Your task to perform on an android device: Go to wifi settings Image 0: 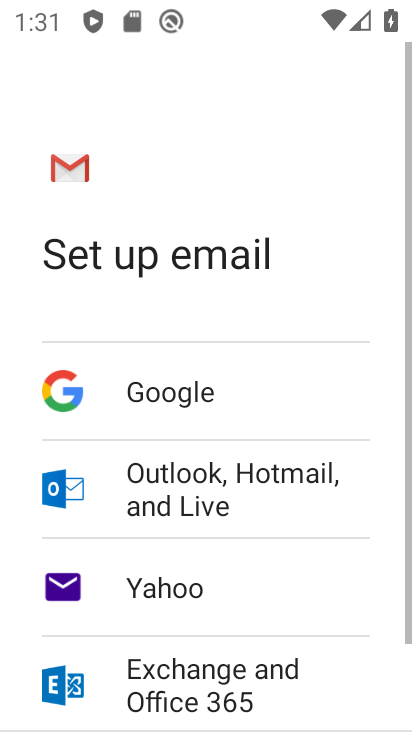
Step 0: press home button
Your task to perform on an android device: Go to wifi settings Image 1: 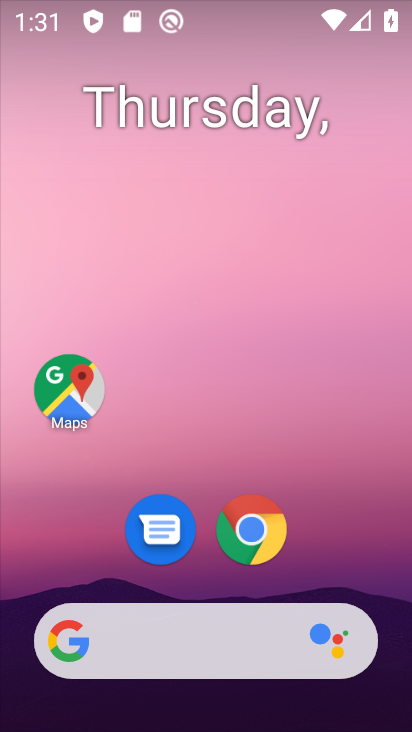
Step 1: drag from (217, 721) to (218, 157)
Your task to perform on an android device: Go to wifi settings Image 2: 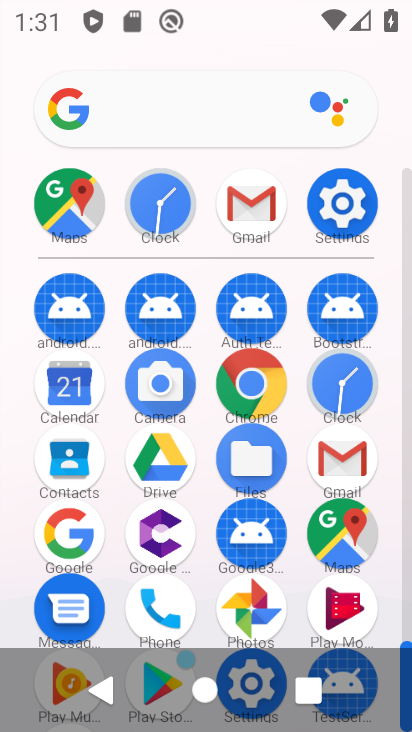
Step 2: click (339, 195)
Your task to perform on an android device: Go to wifi settings Image 3: 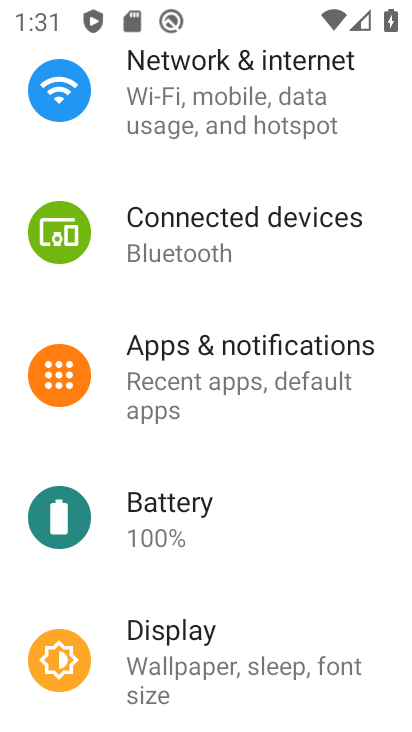
Step 3: drag from (214, 176) to (243, 527)
Your task to perform on an android device: Go to wifi settings Image 4: 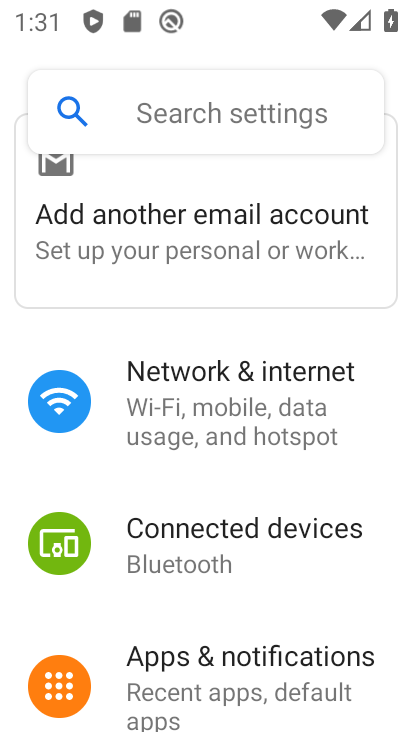
Step 4: click (195, 402)
Your task to perform on an android device: Go to wifi settings Image 5: 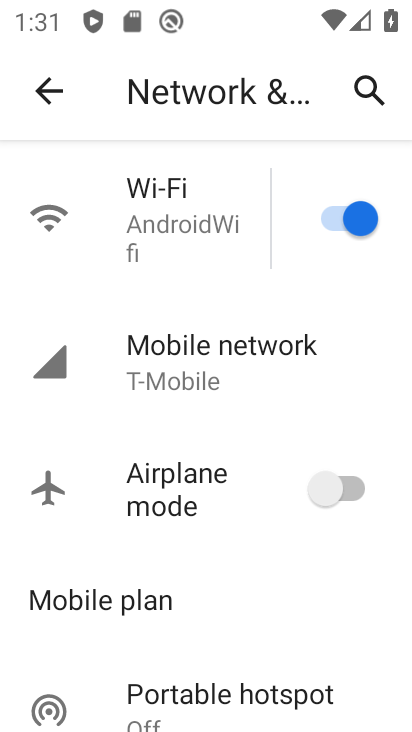
Step 5: click (173, 203)
Your task to perform on an android device: Go to wifi settings Image 6: 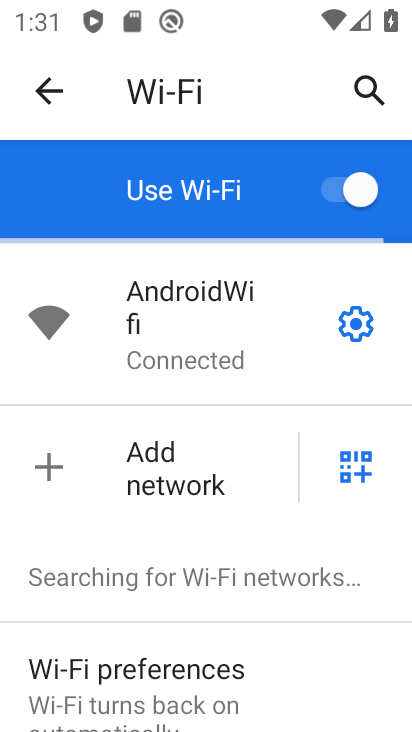
Step 6: click (359, 321)
Your task to perform on an android device: Go to wifi settings Image 7: 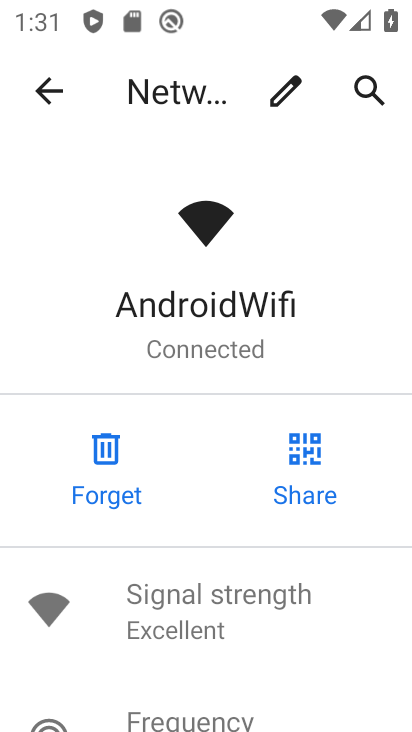
Step 7: task complete